Your task to perform on an android device: Look up the best rated drill on Lowes. Image 0: 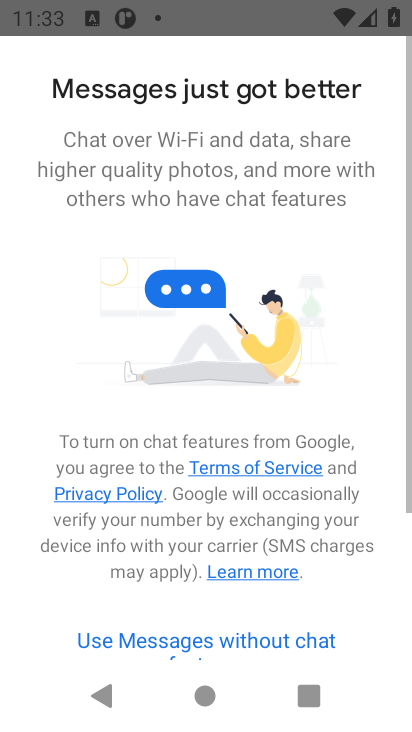
Step 0: press home button
Your task to perform on an android device: Look up the best rated drill on Lowes. Image 1: 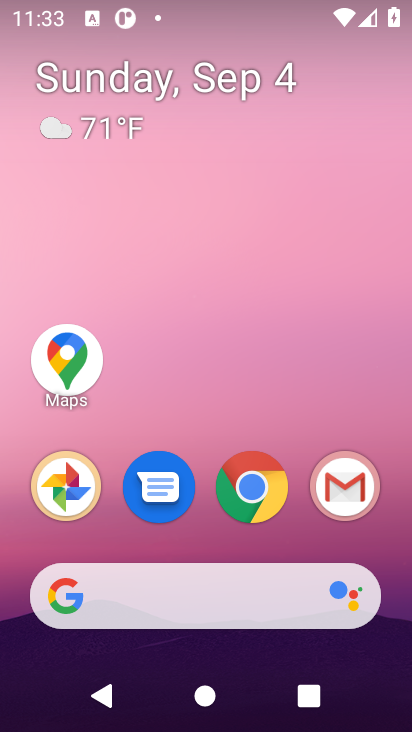
Step 1: click (231, 613)
Your task to perform on an android device: Look up the best rated drill on Lowes. Image 2: 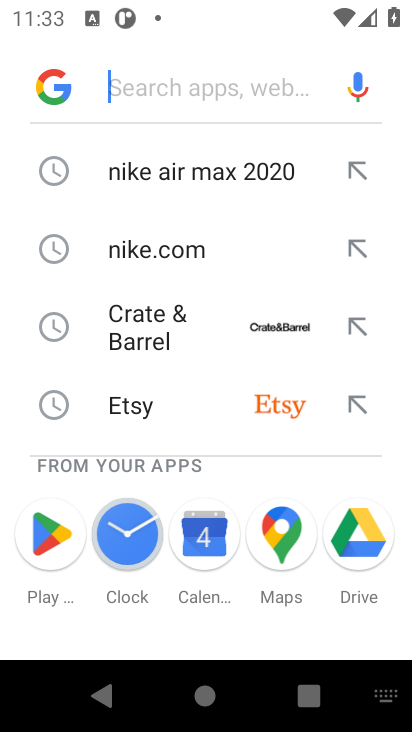
Step 2: type "lowes"
Your task to perform on an android device: Look up the best rated drill on Lowes. Image 3: 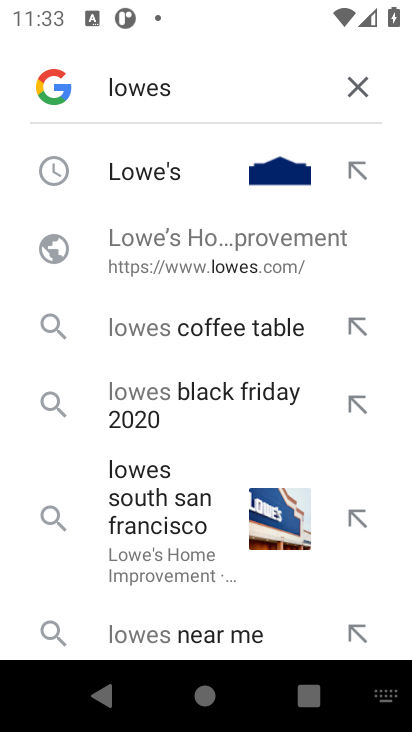
Step 3: click (176, 166)
Your task to perform on an android device: Look up the best rated drill on Lowes. Image 4: 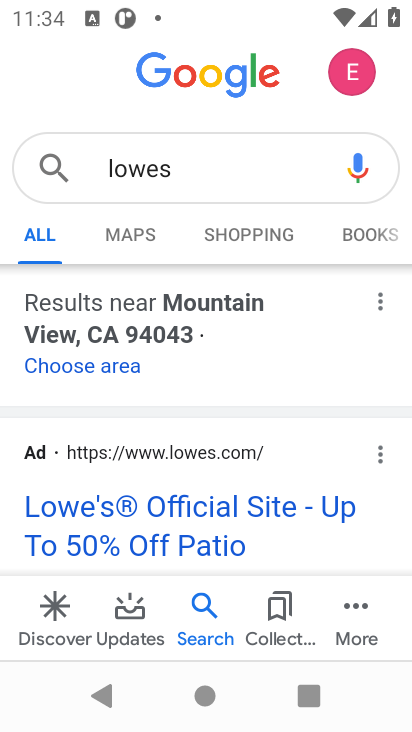
Step 4: click (150, 511)
Your task to perform on an android device: Look up the best rated drill on Lowes. Image 5: 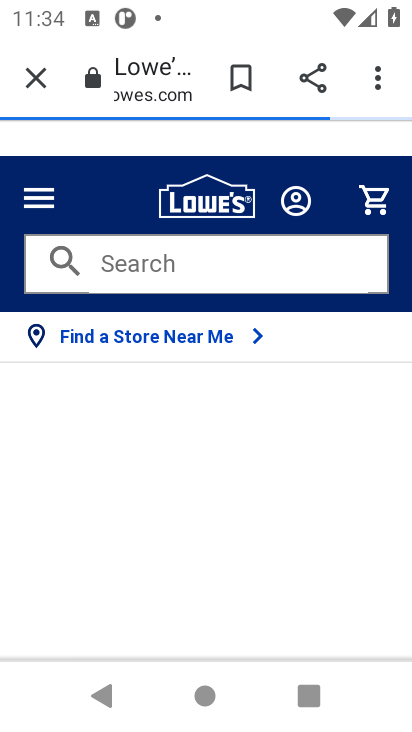
Step 5: click (224, 271)
Your task to perform on an android device: Look up the best rated drill on Lowes. Image 6: 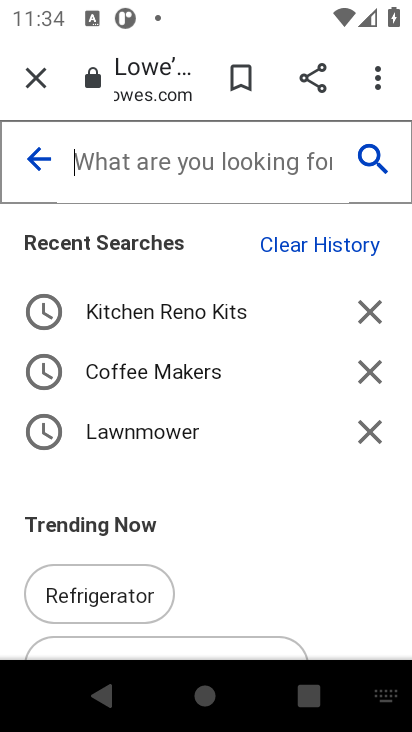
Step 6: type "drill"
Your task to perform on an android device: Look up the best rated drill on Lowes. Image 7: 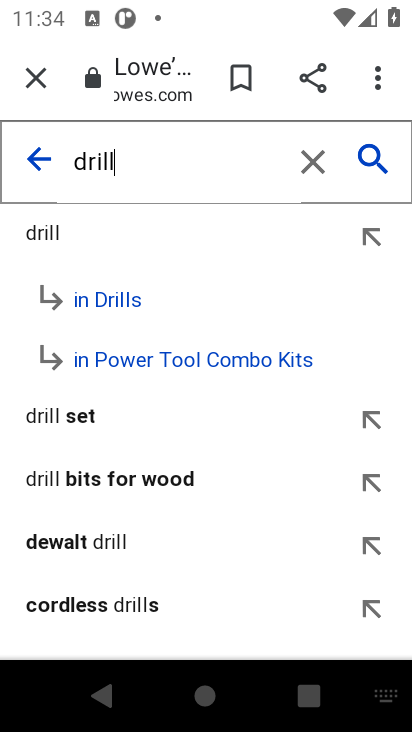
Step 7: click (54, 241)
Your task to perform on an android device: Look up the best rated drill on Lowes. Image 8: 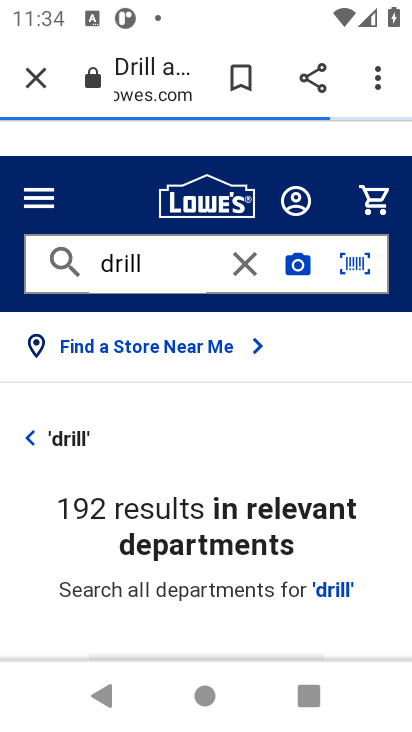
Step 8: task complete